Your task to perform on an android device: change the clock display to digital Image 0: 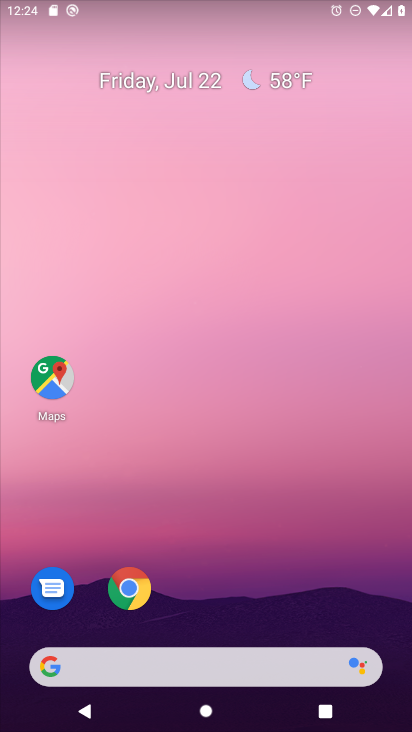
Step 0: drag from (305, 571) to (308, 32)
Your task to perform on an android device: change the clock display to digital Image 1: 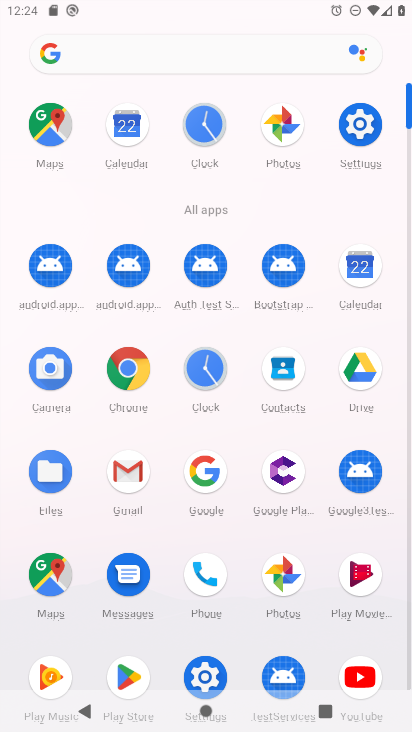
Step 1: click (196, 136)
Your task to perform on an android device: change the clock display to digital Image 2: 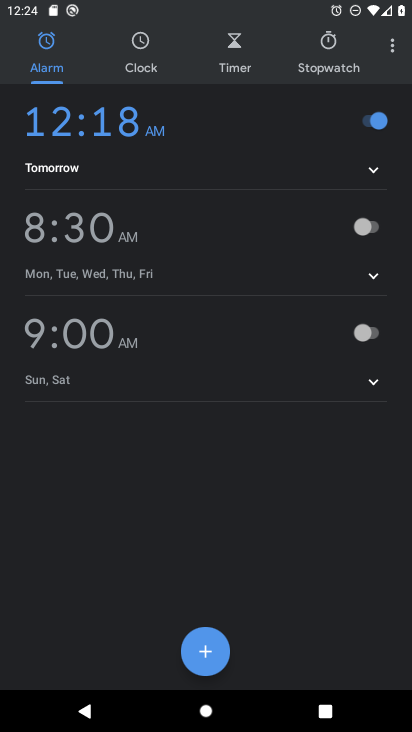
Step 2: click (397, 44)
Your task to perform on an android device: change the clock display to digital Image 3: 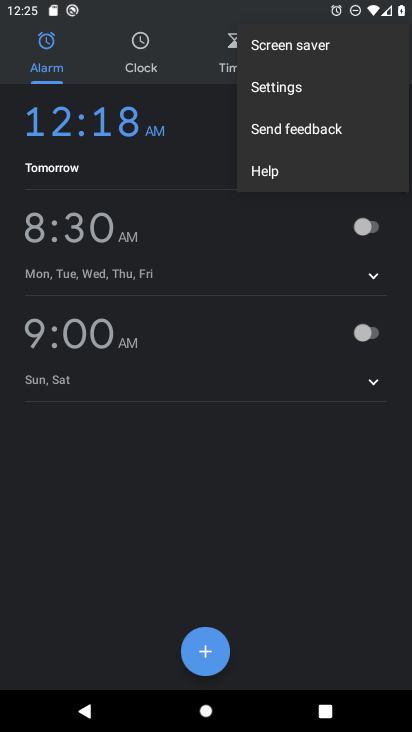
Step 3: click (312, 84)
Your task to perform on an android device: change the clock display to digital Image 4: 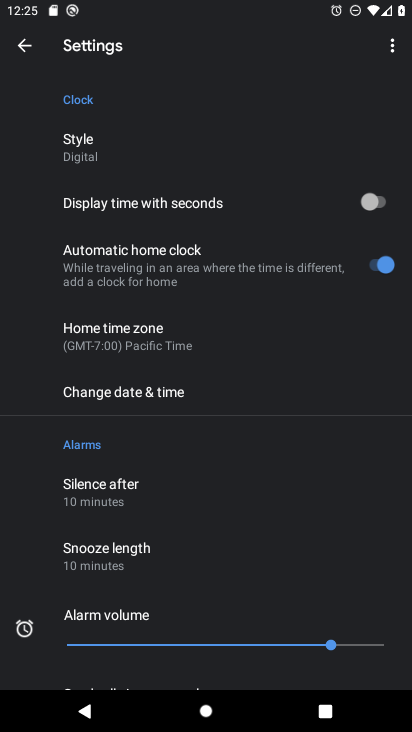
Step 4: click (102, 142)
Your task to perform on an android device: change the clock display to digital Image 5: 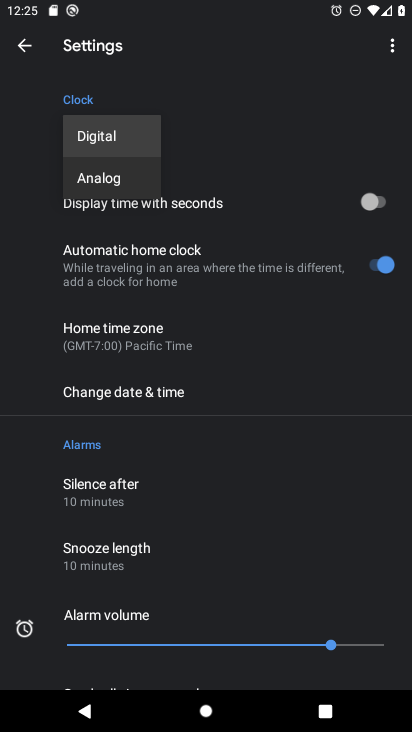
Step 5: click (126, 142)
Your task to perform on an android device: change the clock display to digital Image 6: 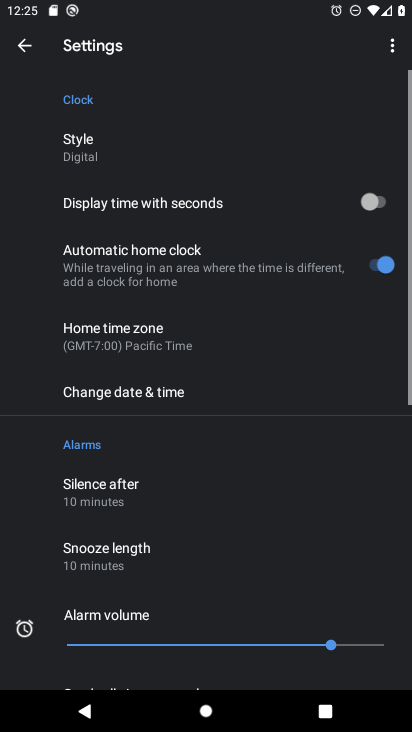
Step 6: task complete